Your task to perform on an android device: change timer sound Image 0: 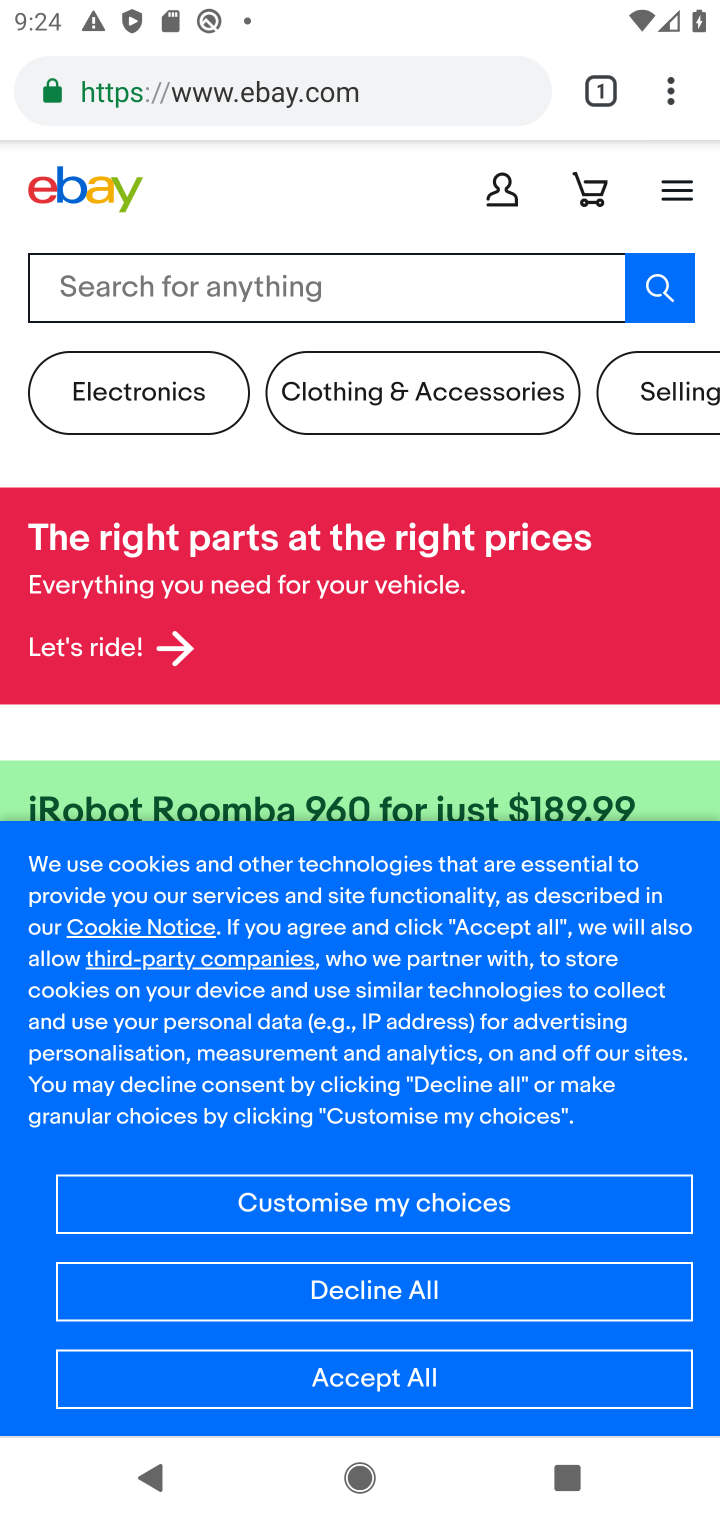
Step 0: press home button
Your task to perform on an android device: change timer sound Image 1: 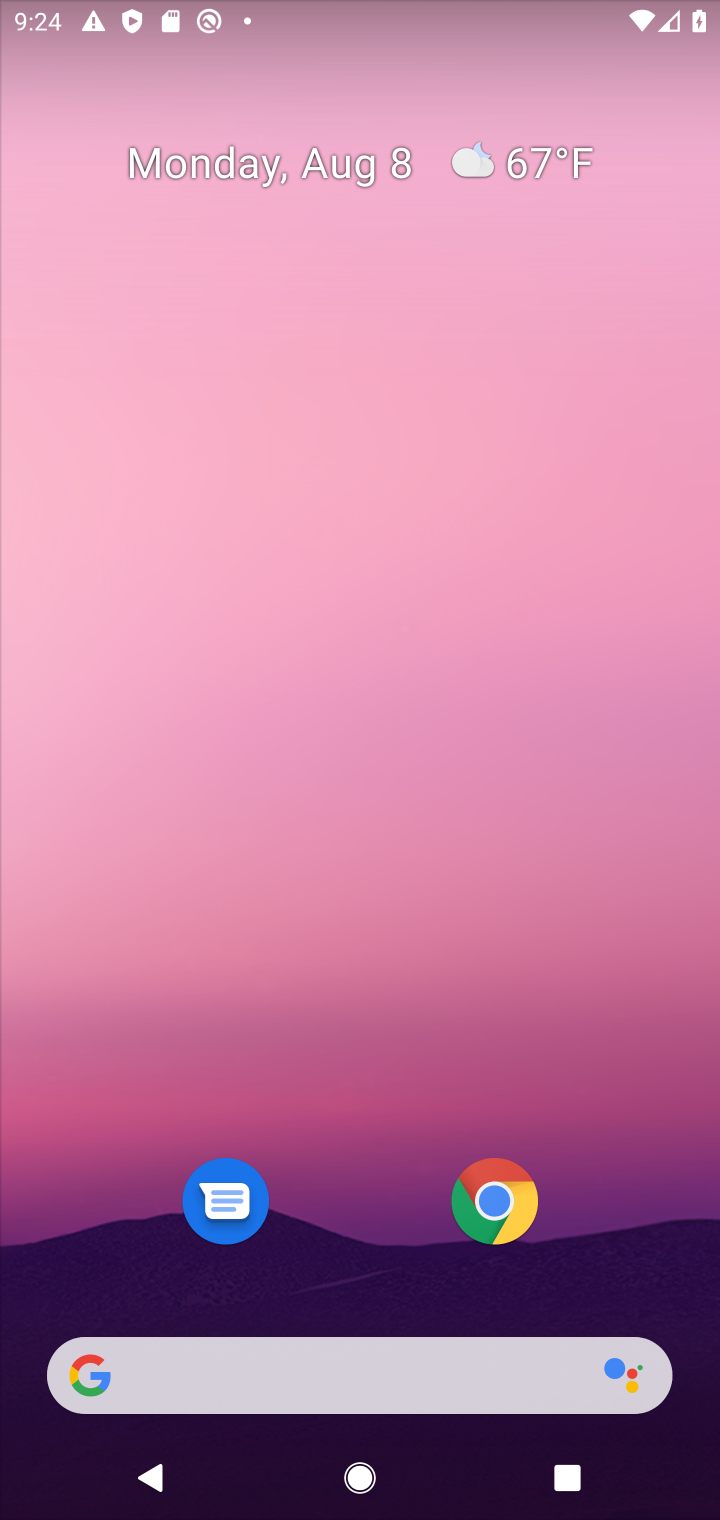
Step 1: drag from (362, 1176) to (422, 258)
Your task to perform on an android device: change timer sound Image 2: 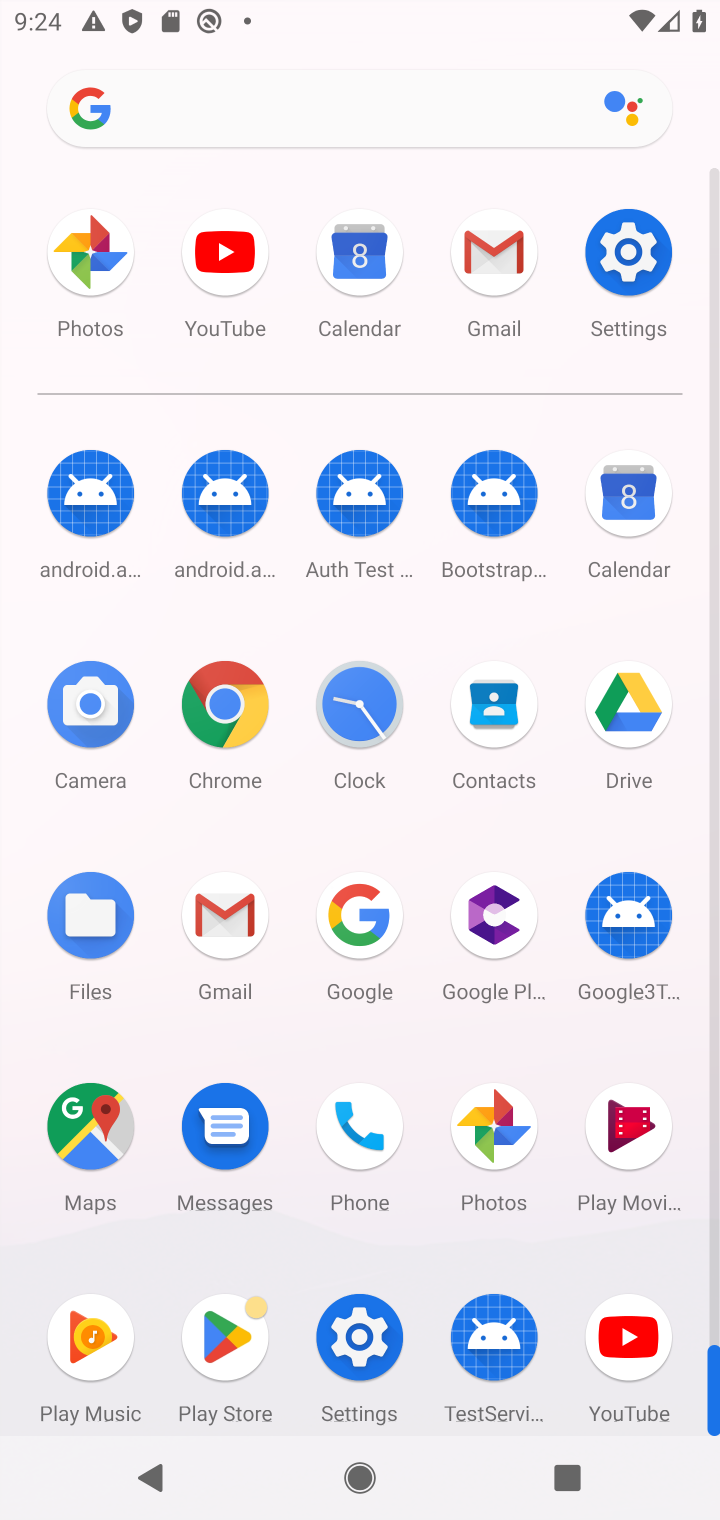
Step 2: click (370, 709)
Your task to perform on an android device: change timer sound Image 3: 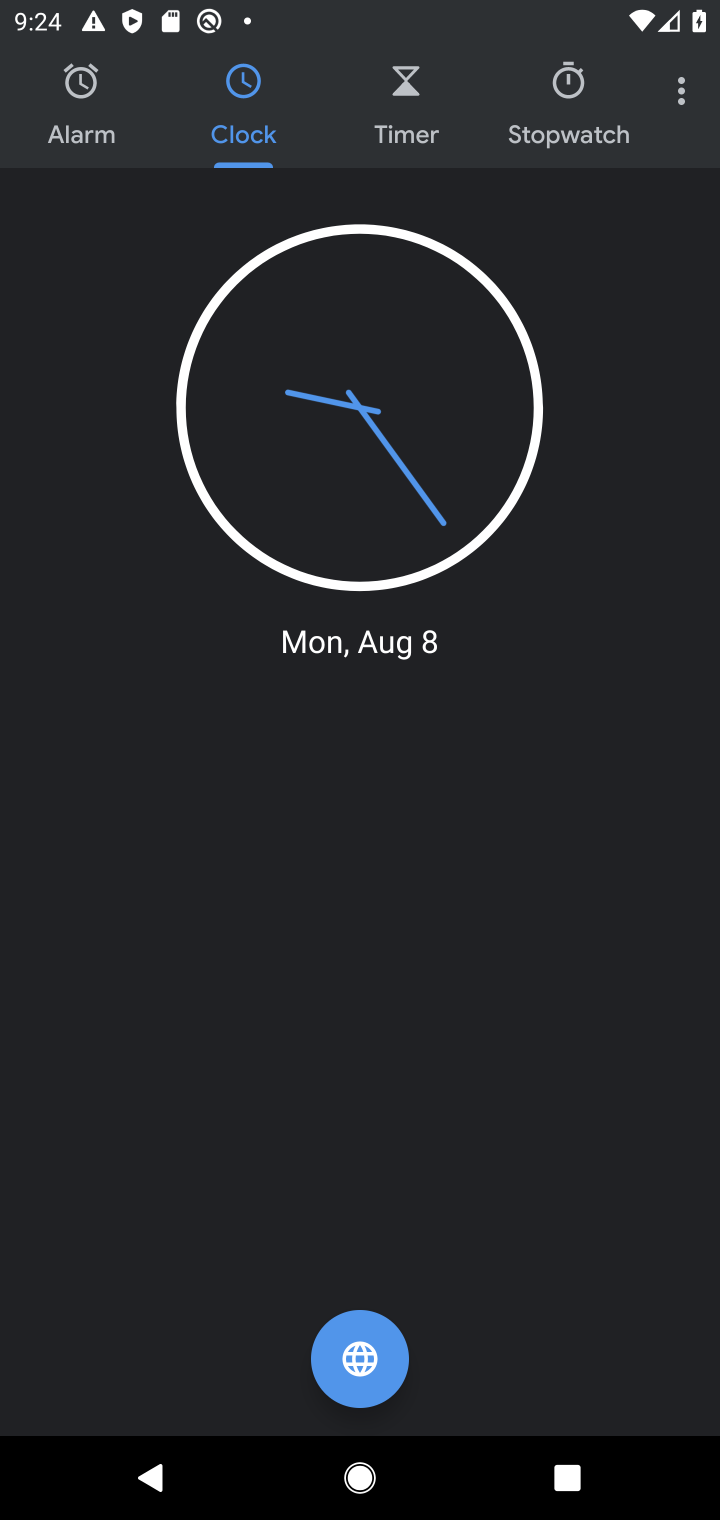
Step 3: click (683, 104)
Your task to perform on an android device: change timer sound Image 4: 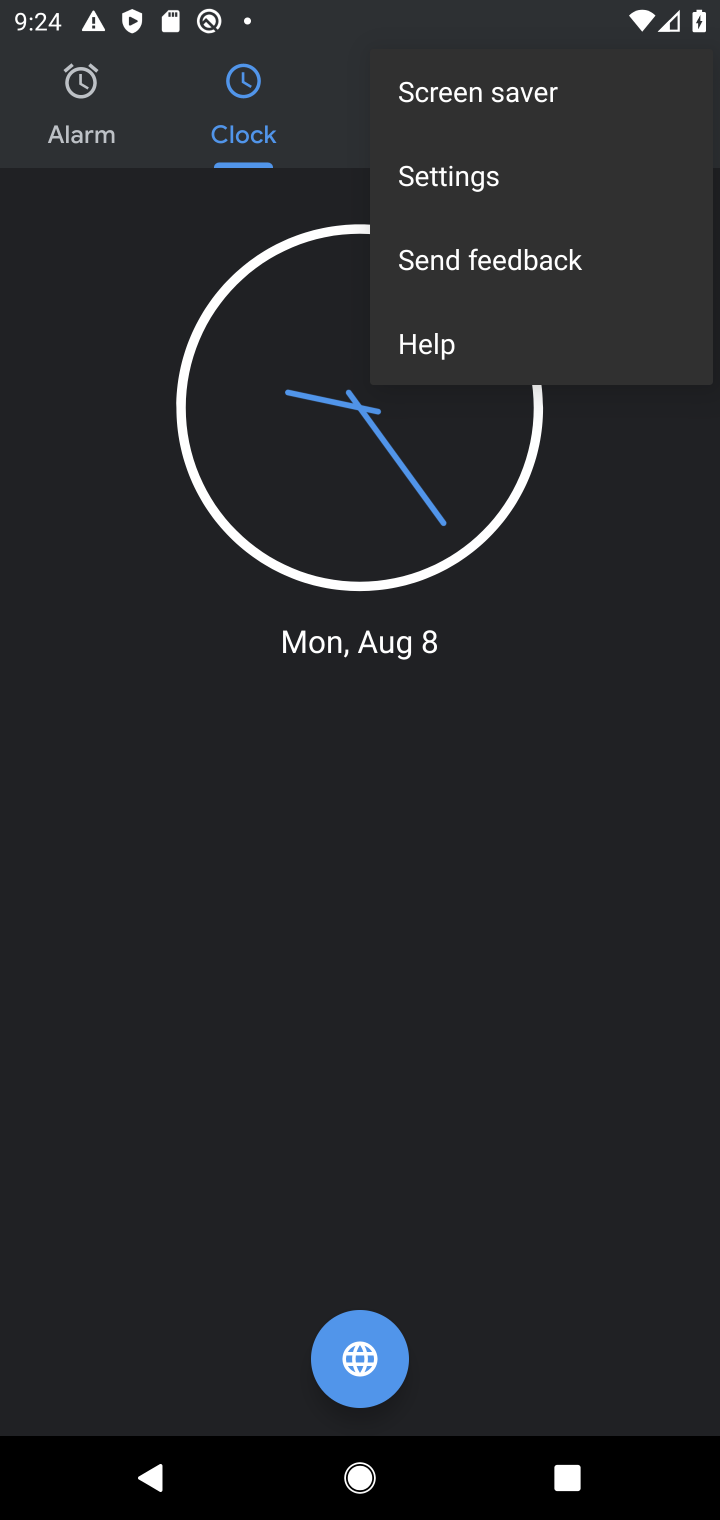
Step 4: click (476, 177)
Your task to perform on an android device: change timer sound Image 5: 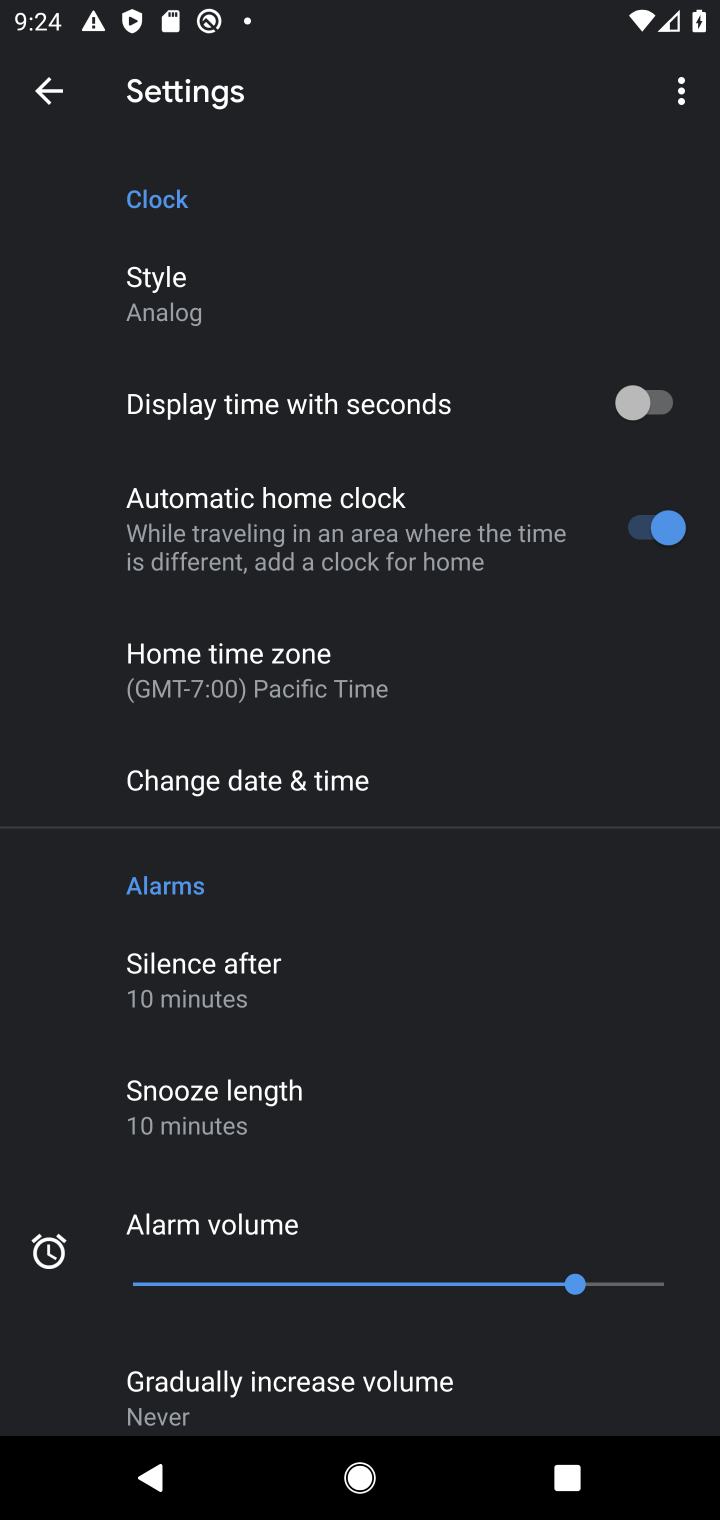
Step 5: drag from (511, 1003) to (536, 654)
Your task to perform on an android device: change timer sound Image 6: 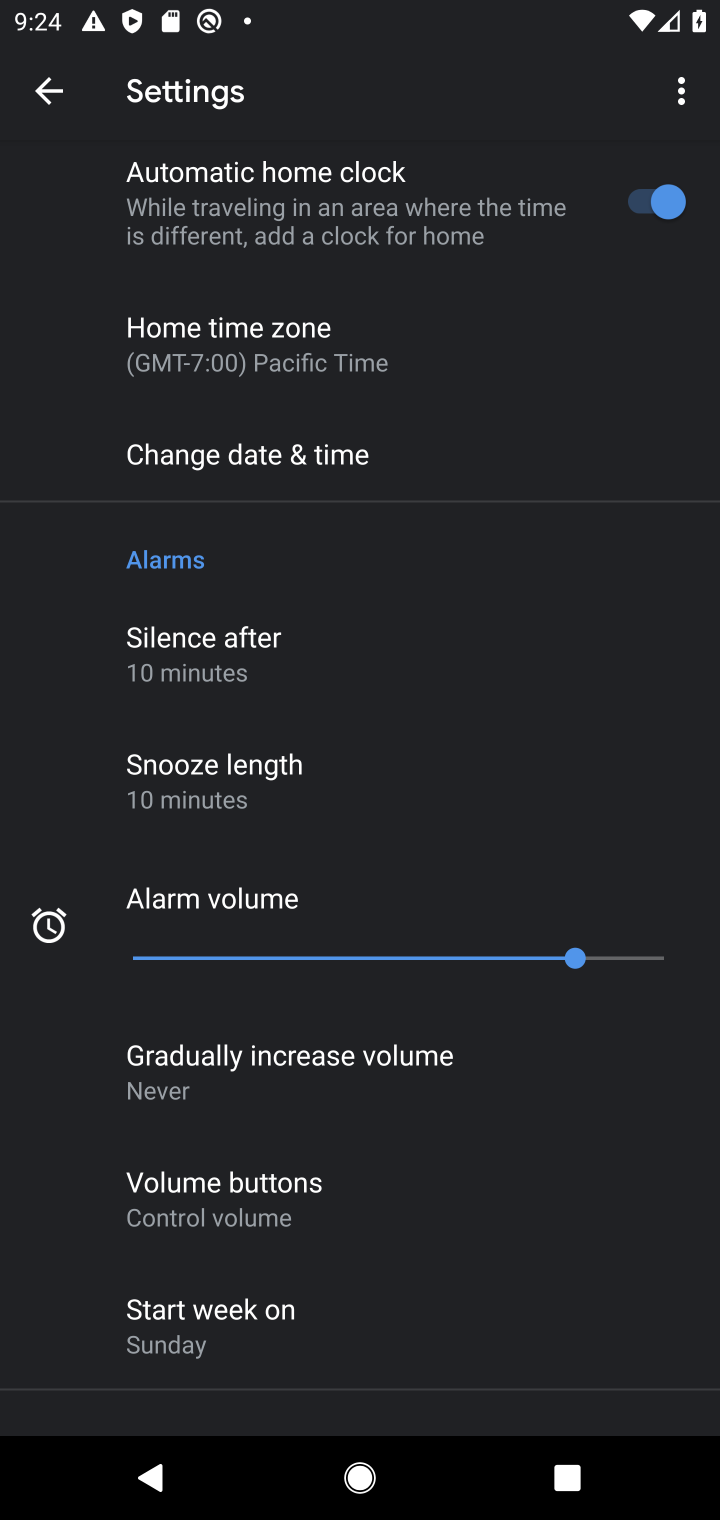
Step 6: drag from (583, 1138) to (620, 798)
Your task to perform on an android device: change timer sound Image 7: 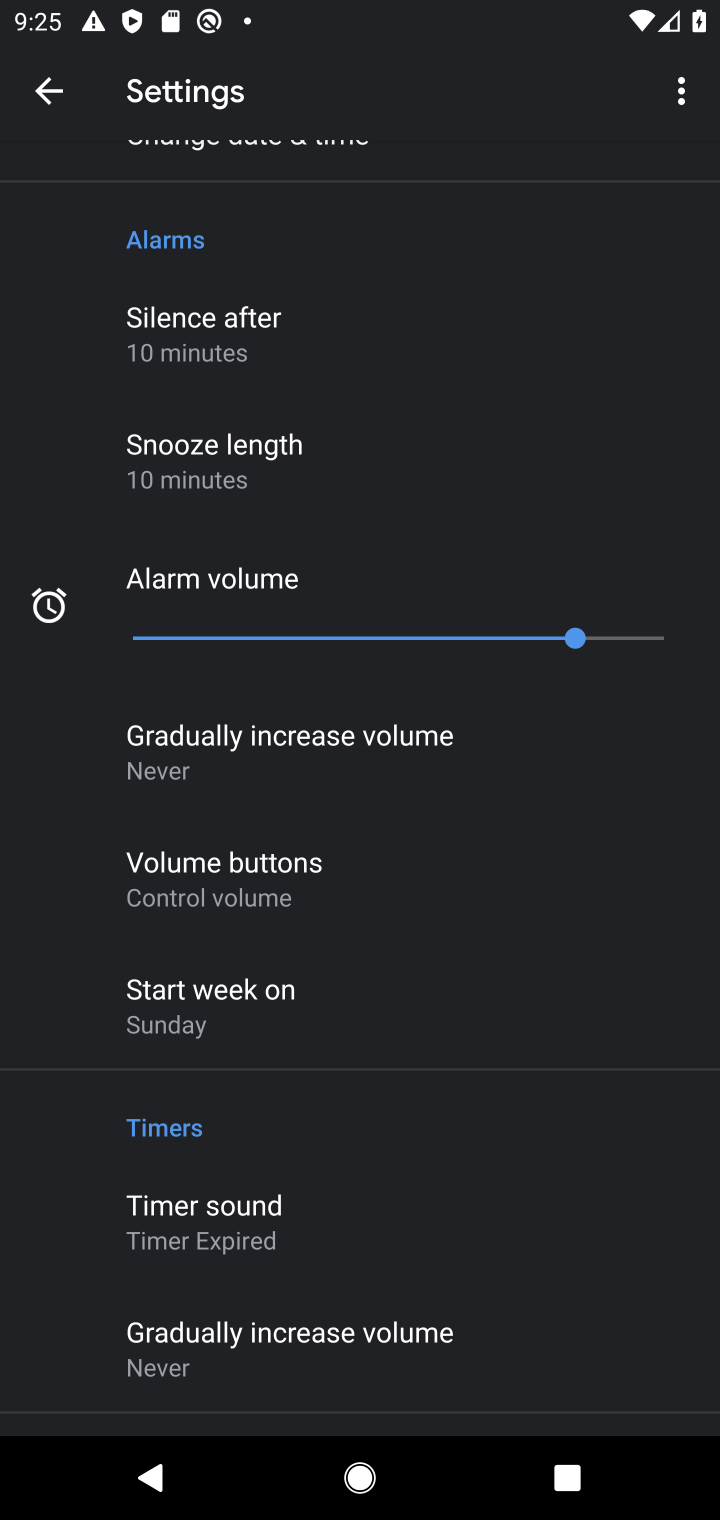
Step 7: drag from (579, 1063) to (613, 697)
Your task to perform on an android device: change timer sound Image 8: 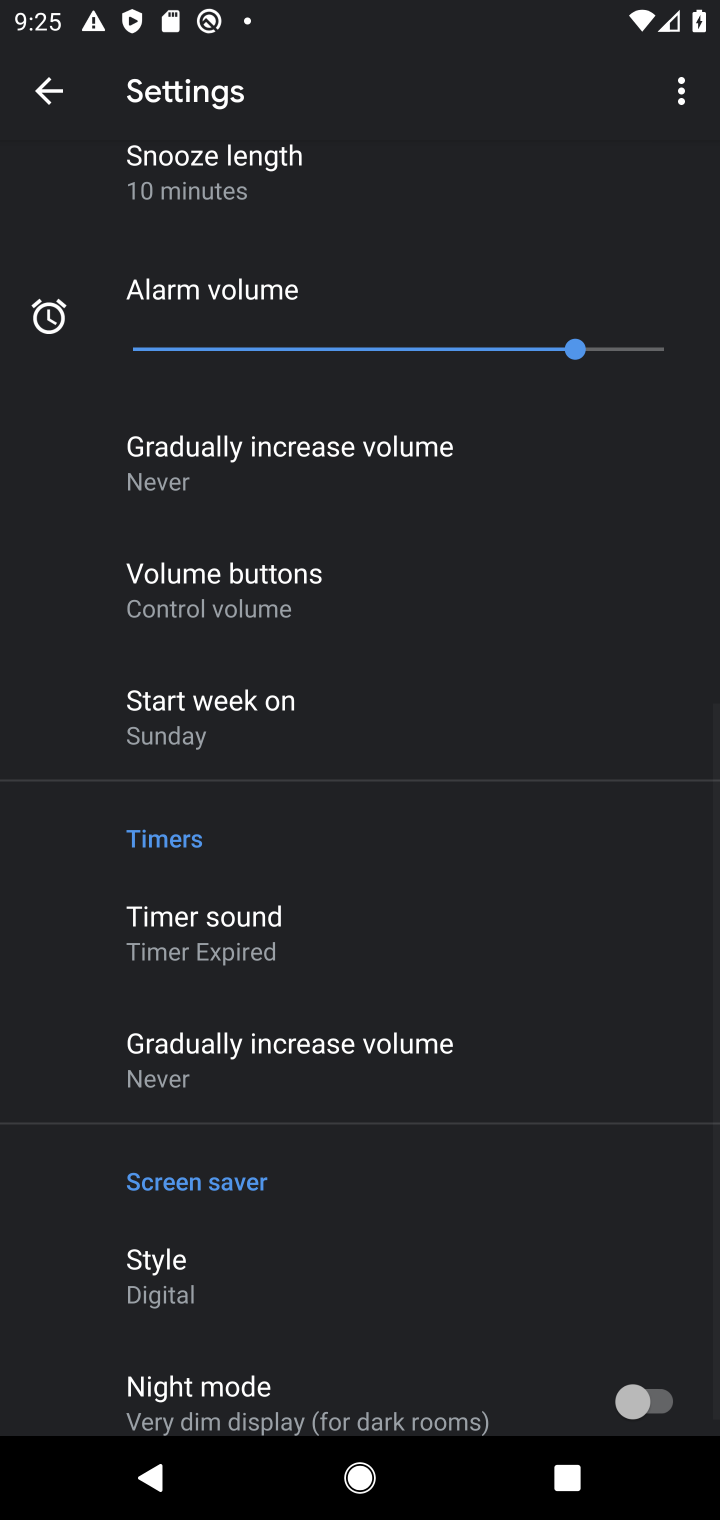
Step 8: drag from (564, 1067) to (598, 802)
Your task to perform on an android device: change timer sound Image 9: 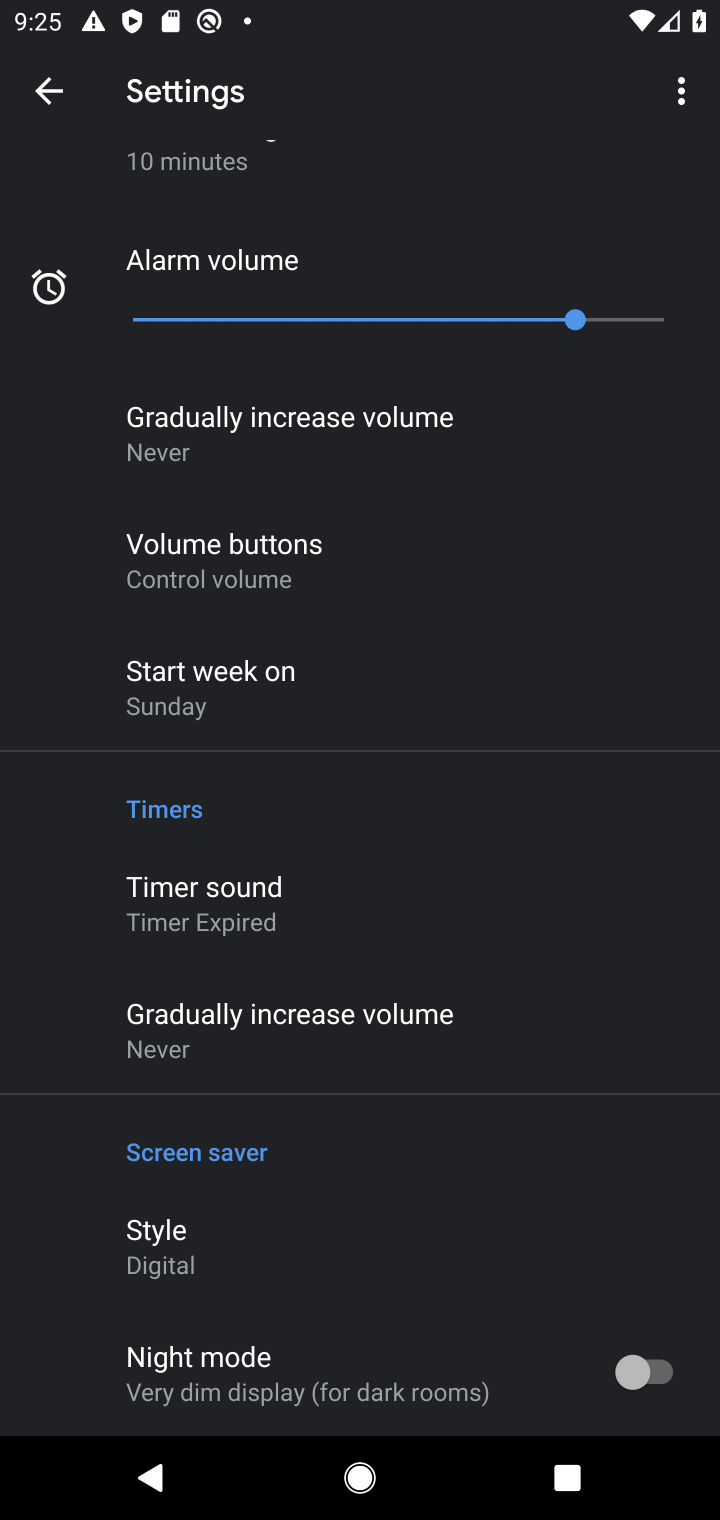
Step 9: drag from (573, 552) to (570, 846)
Your task to perform on an android device: change timer sound Image 10: 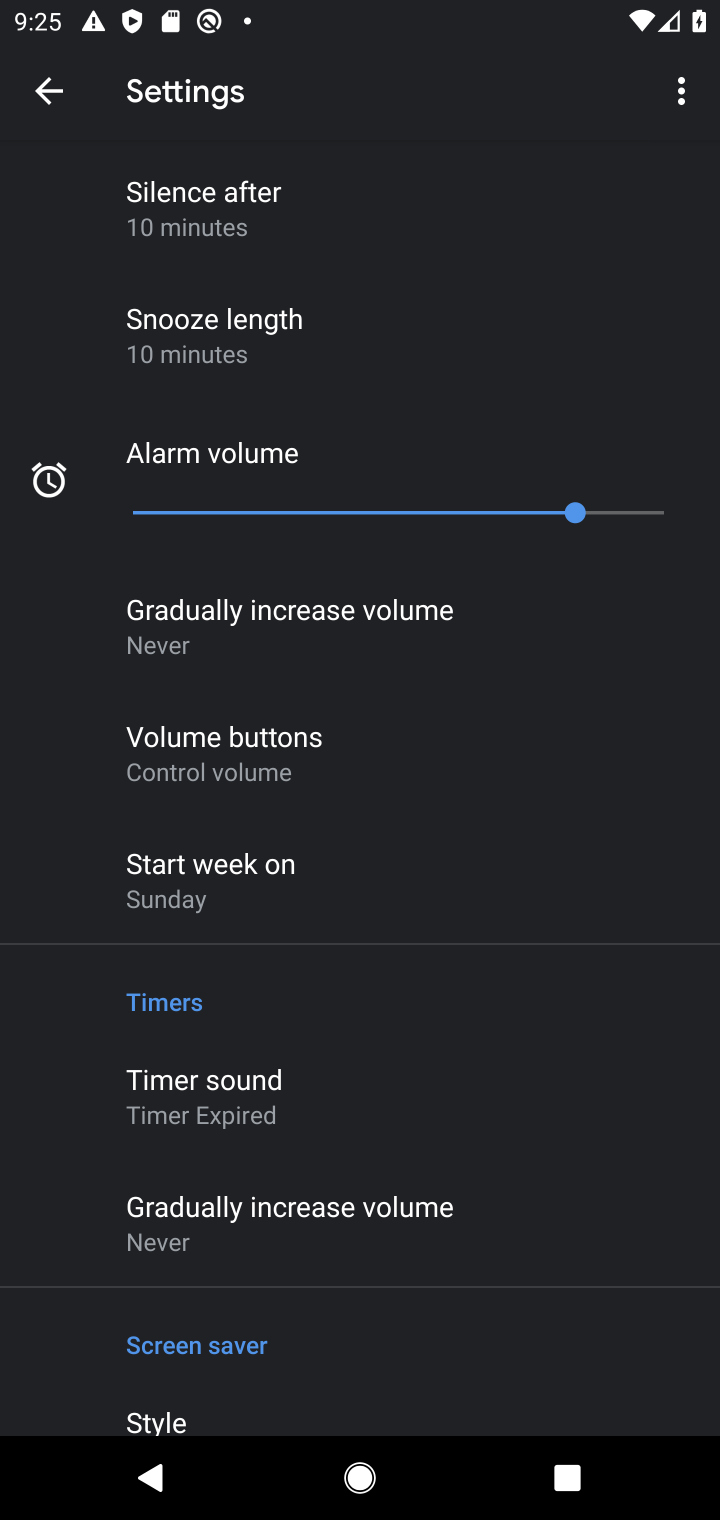
Step 10: drag from (610, 365) to (619, 790)
Your task to perform on an android device: change timer sound Image 11: 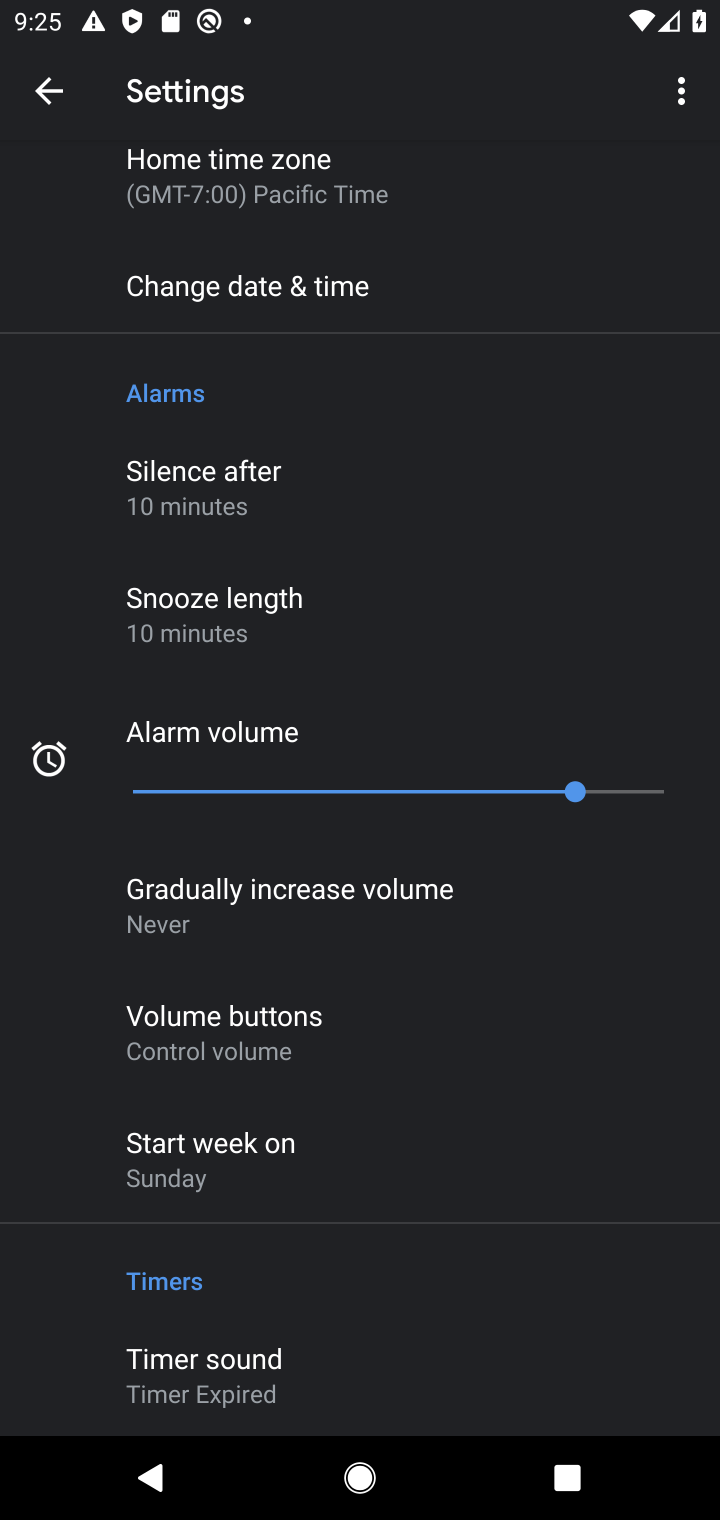
Step 11: drag from (624, 439) to (630, 761)
Your task to perform on an android device: change timer sound Image 12: 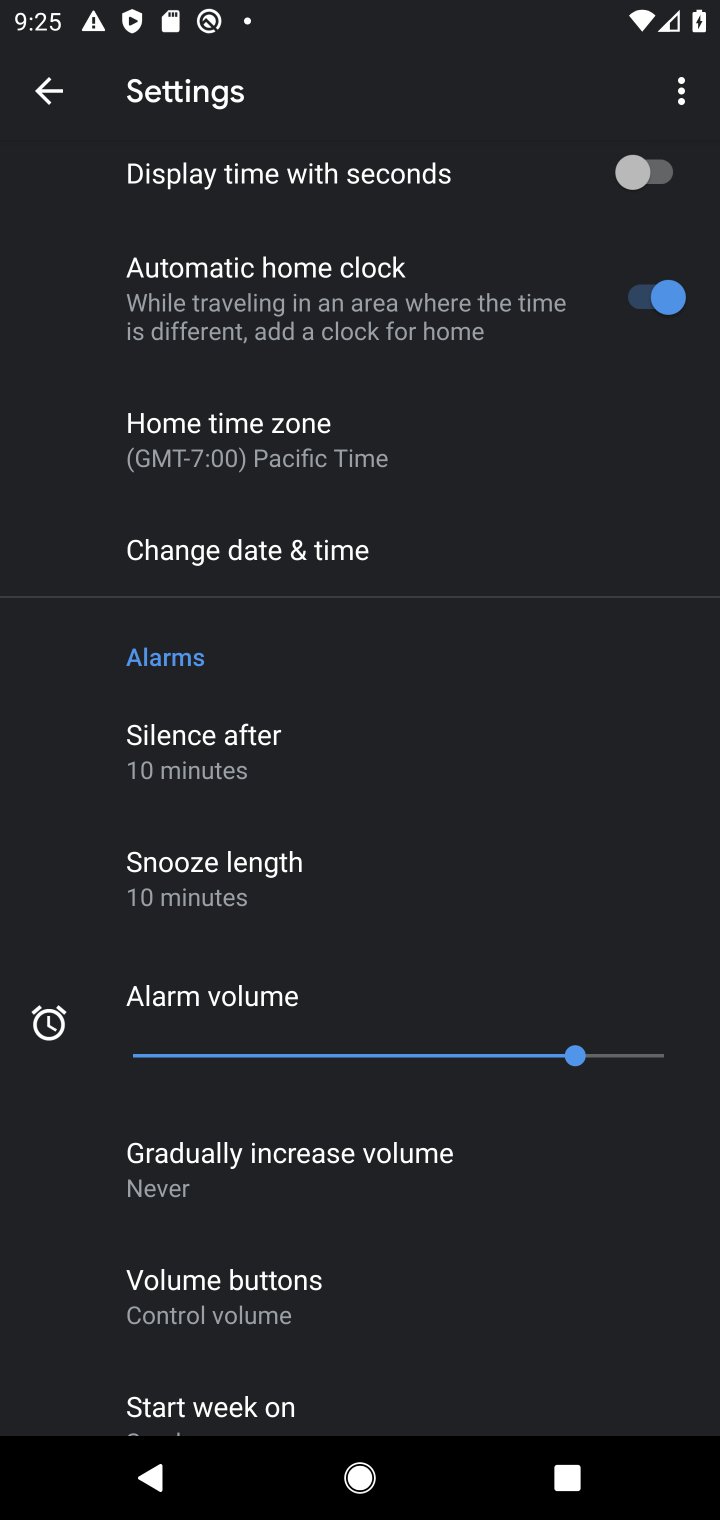
Step 12: drag from (602, 429) to (607, 738)
Your task to perform on an android device: change timer sound Image 13: 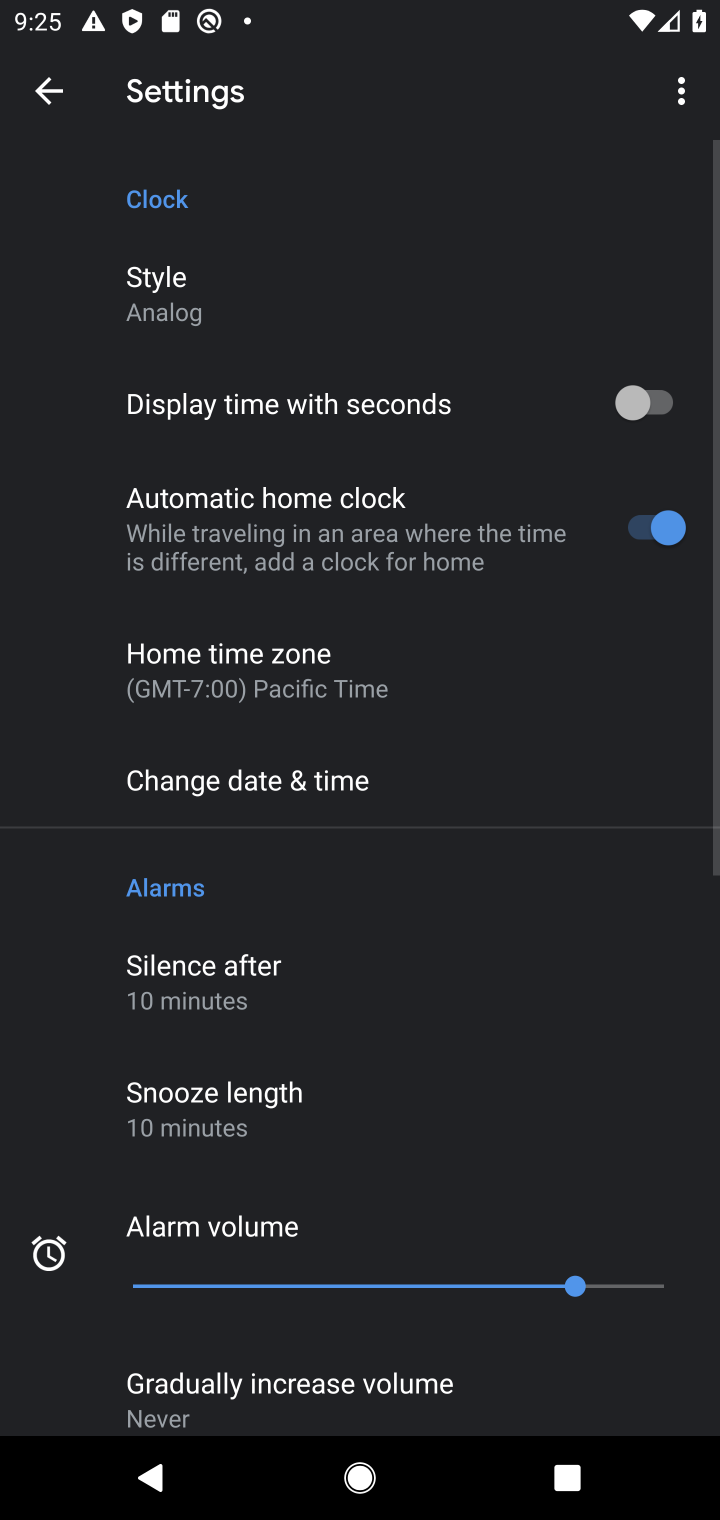
Step 13: drag from (513, 421) to (529, 689)
Your task to perform on an android device: change timer sound Image 14: 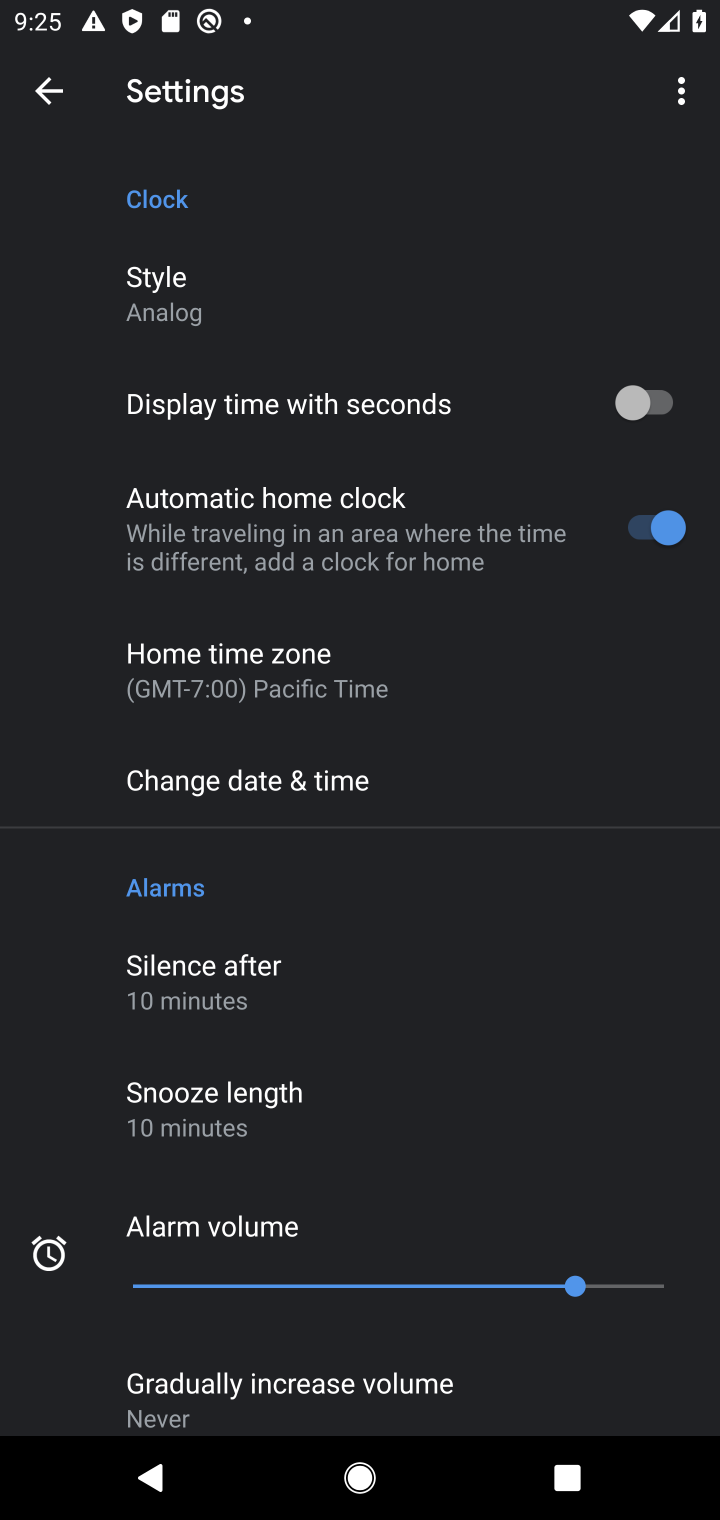
Step 14: drag from (503, 1040) to (488, 622)
Your task to perform on an android device: change timer sound Image 15: 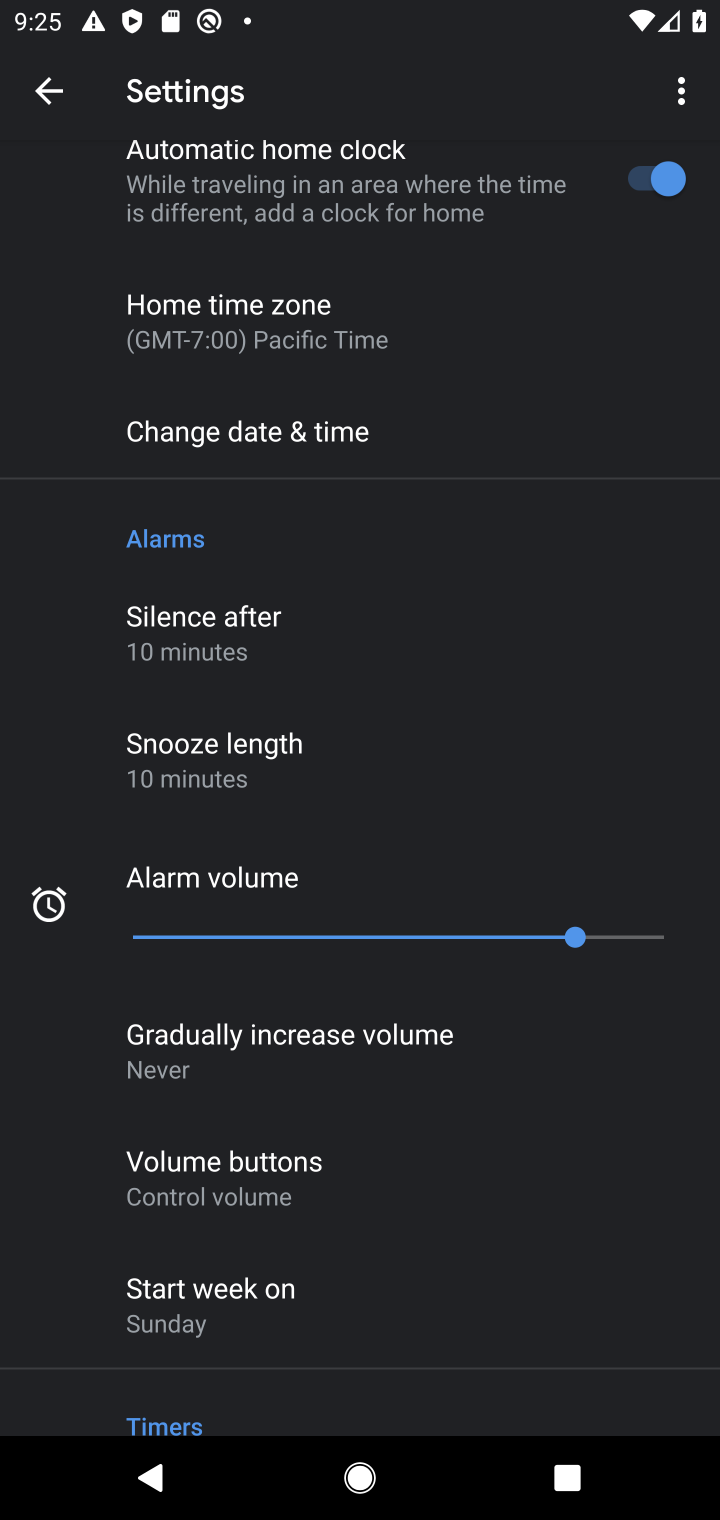
Step 15: drag from (515, 1109) to (545, 668)
Your task to perform on an android device: change timer sound Image 16: 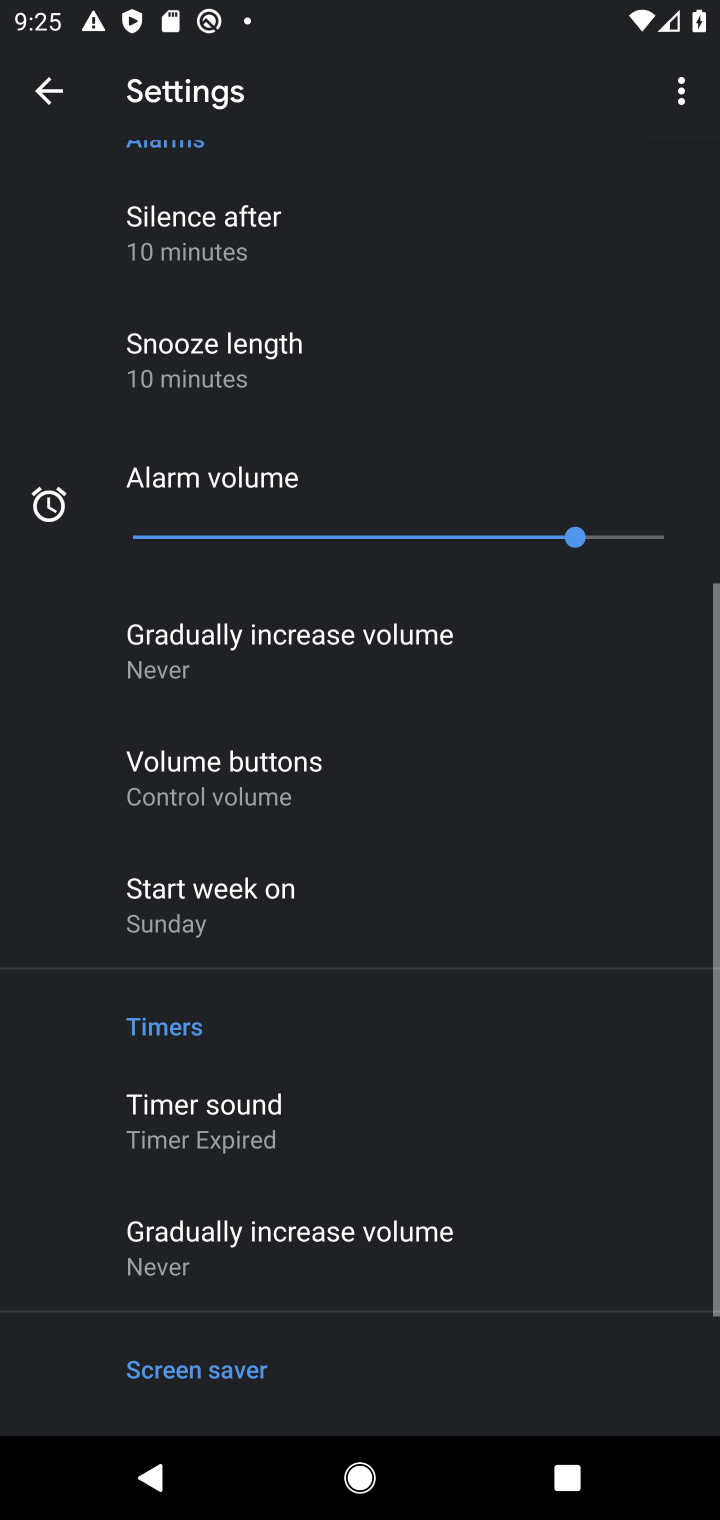
Step 16: drag from (490, 1137) to (508, 720)
Your task to perform on an android device: change timer sound Image 17: 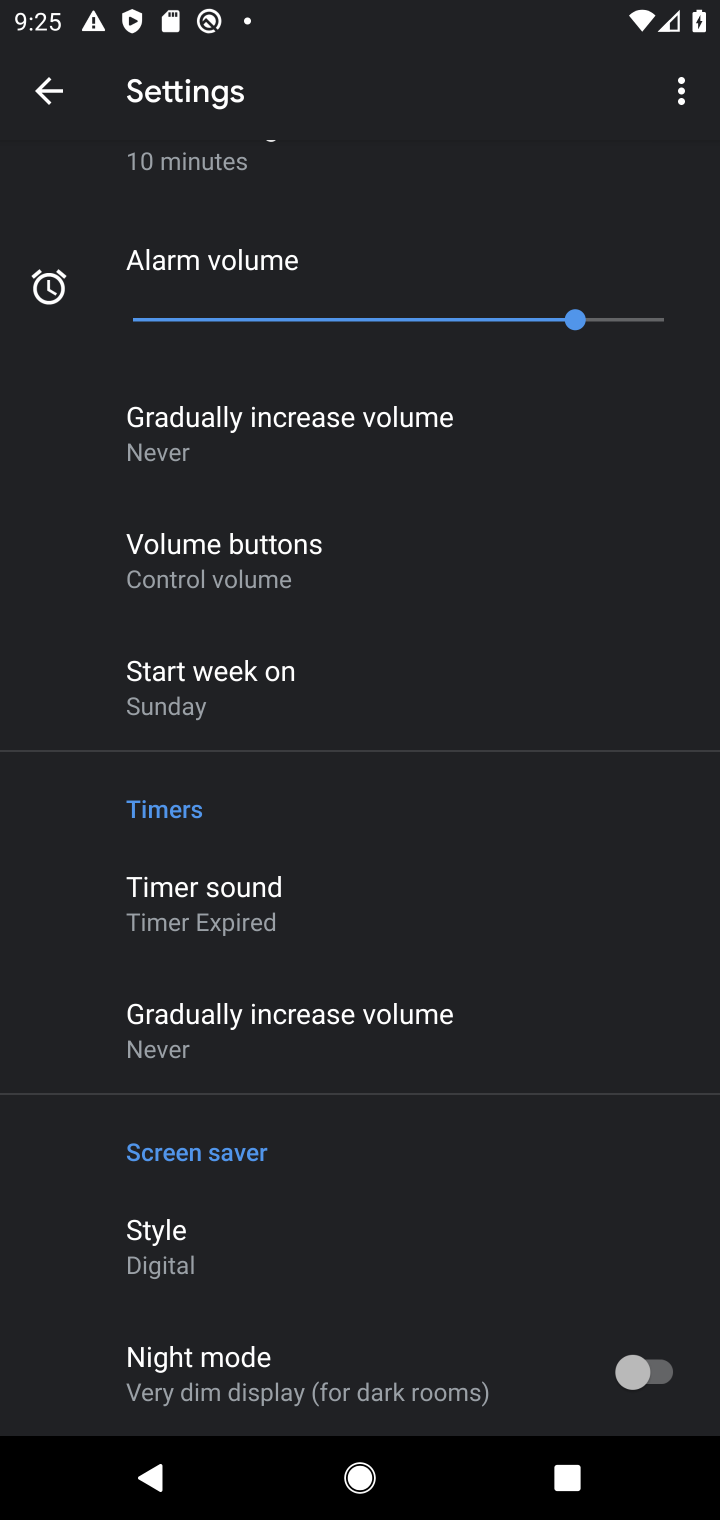
Step 17: drag from (434, 1172) to (454, 842)
Your task to perform on an android device: change timer sound Image 18: 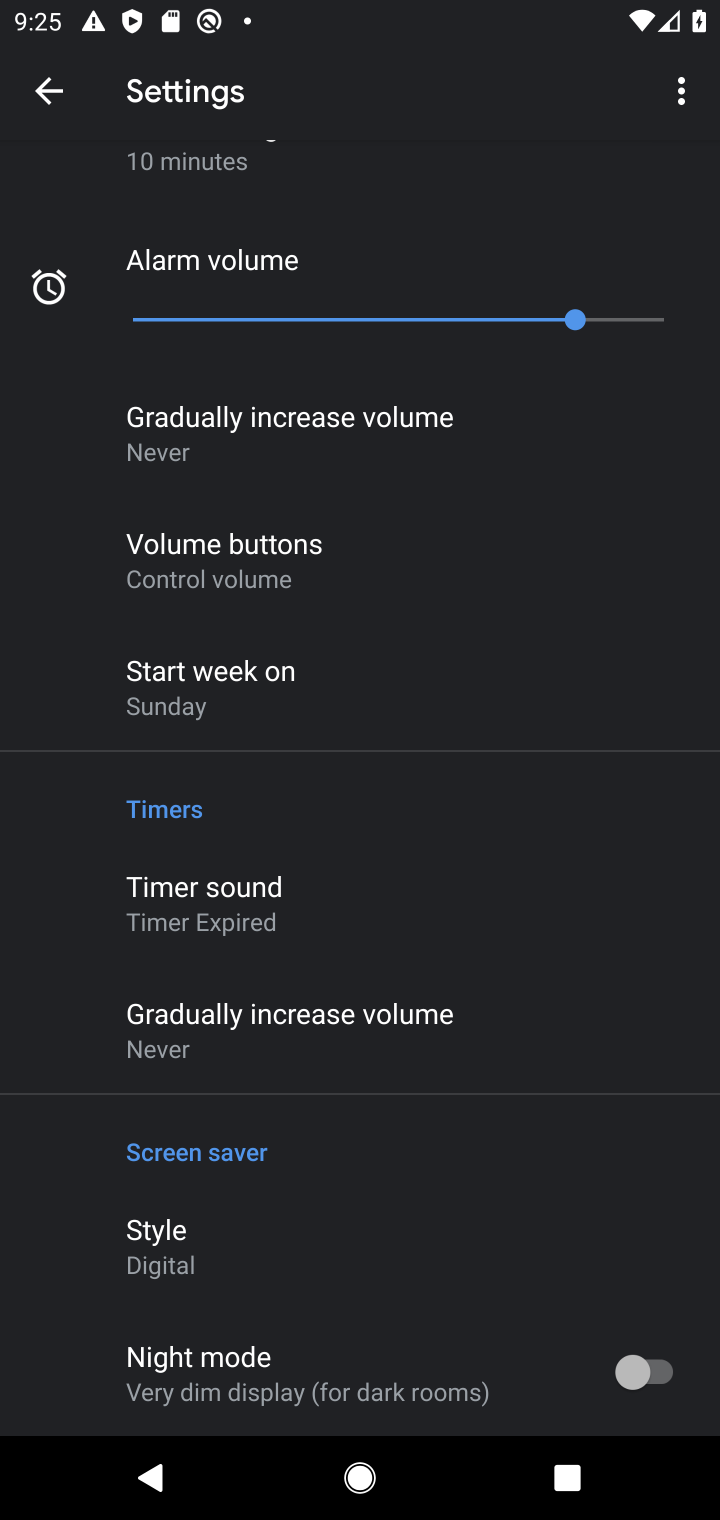
Step 18: click (271, 902)
Your task to perform on an android device: change timer sound Image 19: 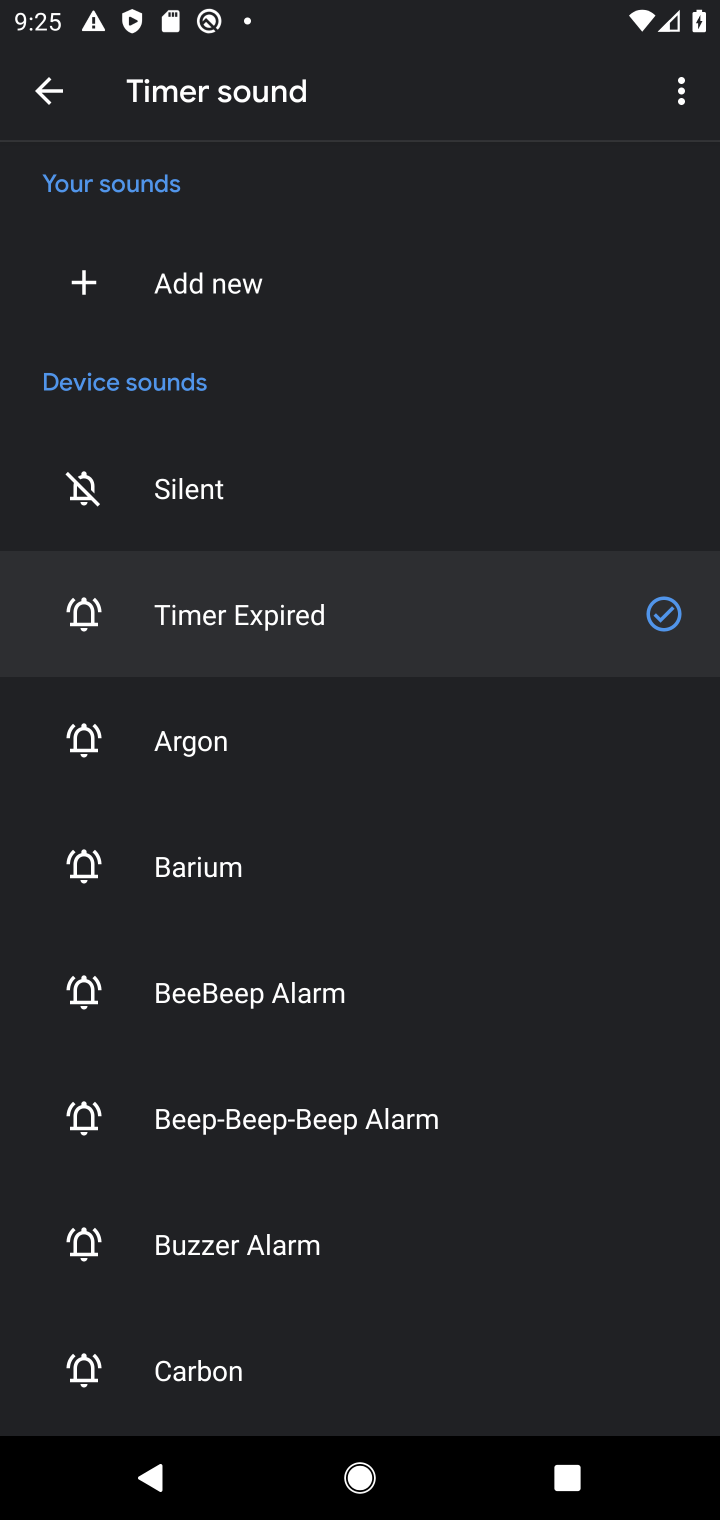
Step 19: click (251, 998)
Your task to perform on an android device: change timer sound Image 20: 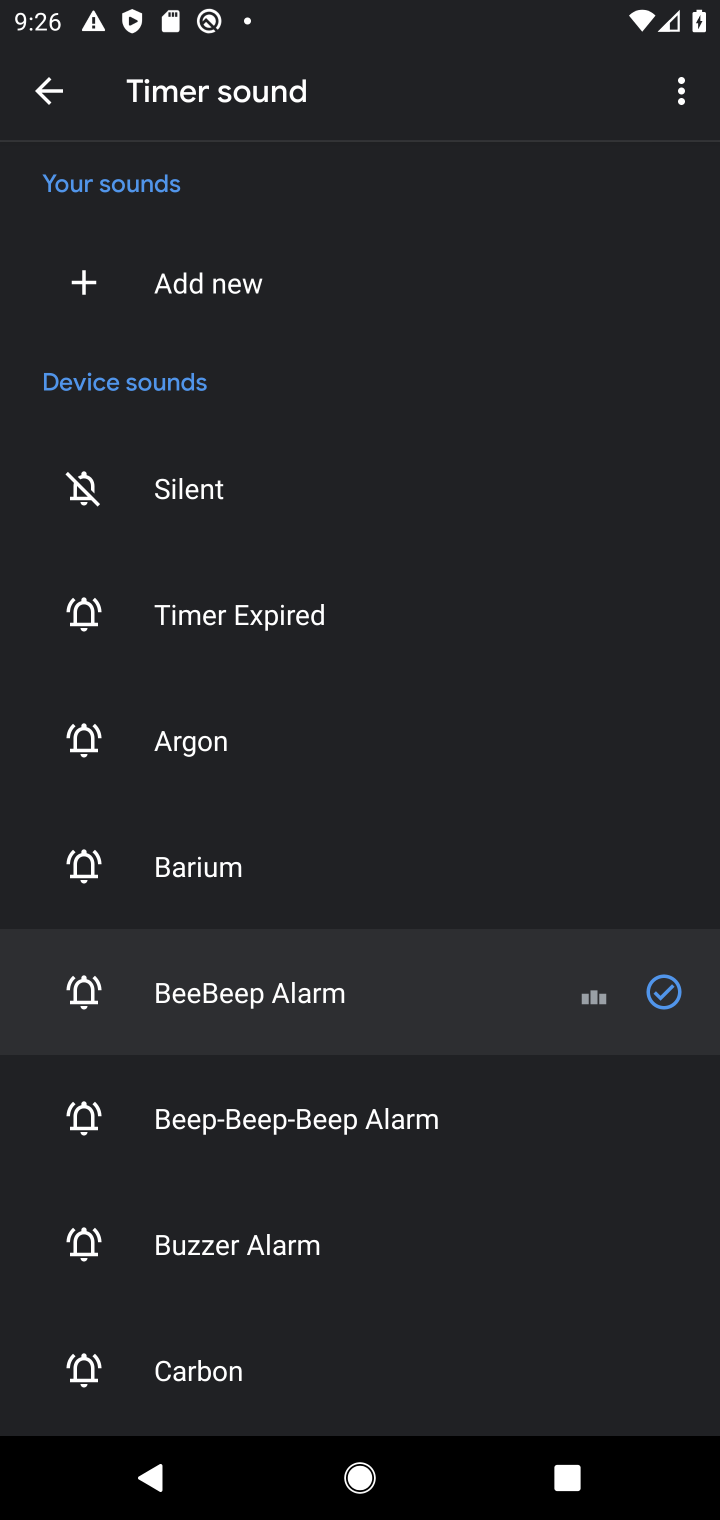
Step 20: task complete